Your task to perform on an android device: See recent photos Image 0: 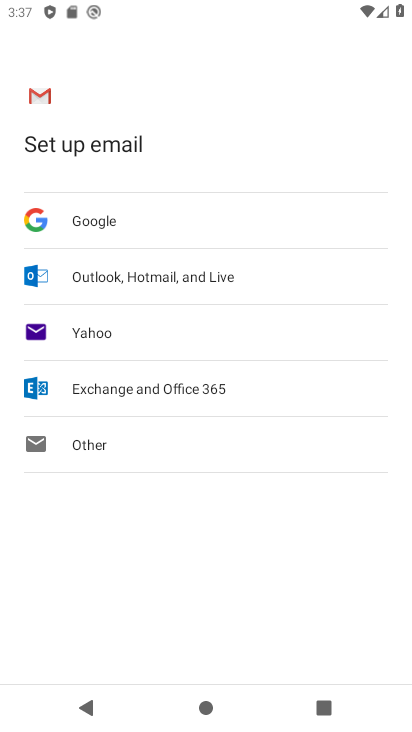
Step 0: press home button
Your task to perform on an android device: See recent photos Image 1: 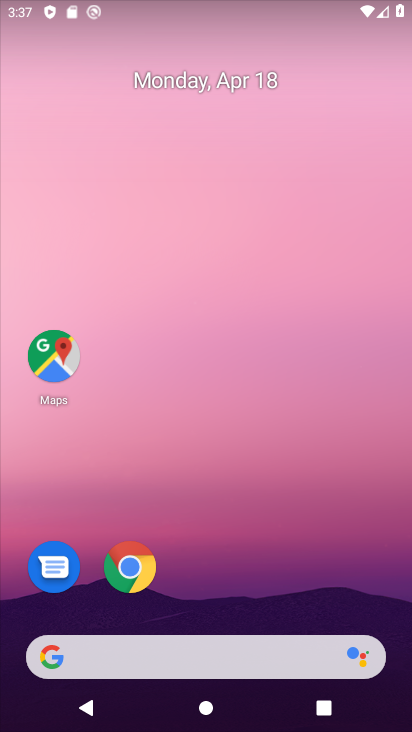
Step 1: drag from (227, 555) to (226, 109)
Your task to perform on an android device: See recent photos Image 2: 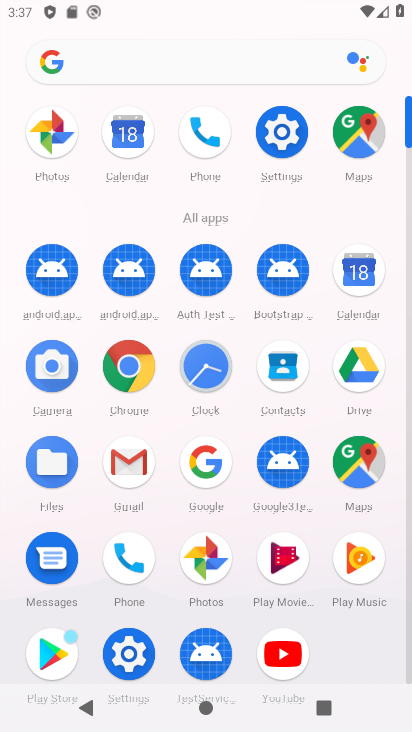
Step 2: click (49, 138)
Your task to perform on an android device: See recent photos Image 3: 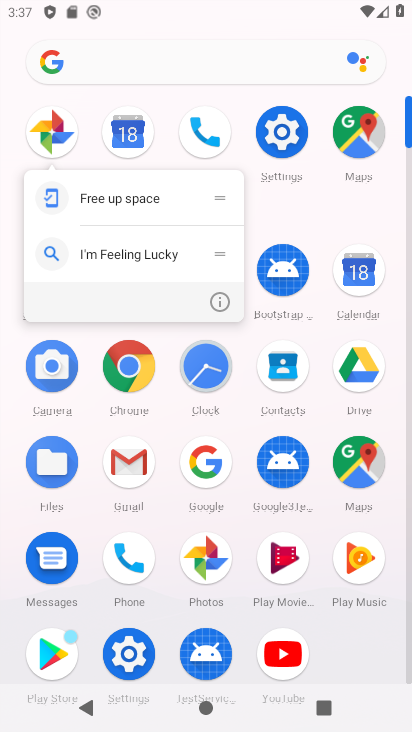
Step 3: click (55, 136)
Your task to perform on an android device: See recent photos Image 4: 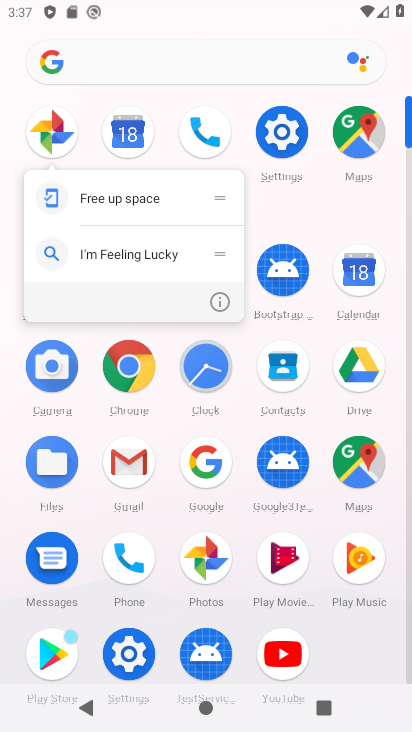
Step 4: click (51, 151)
Your task to perform on an android device: See recent photos Image 5: 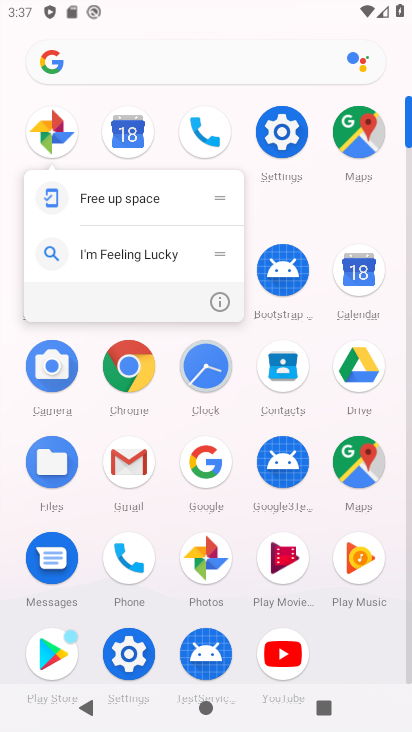
Step 5: click (47, 152)
Your task to perform on an android device: See recent photos Image 6: 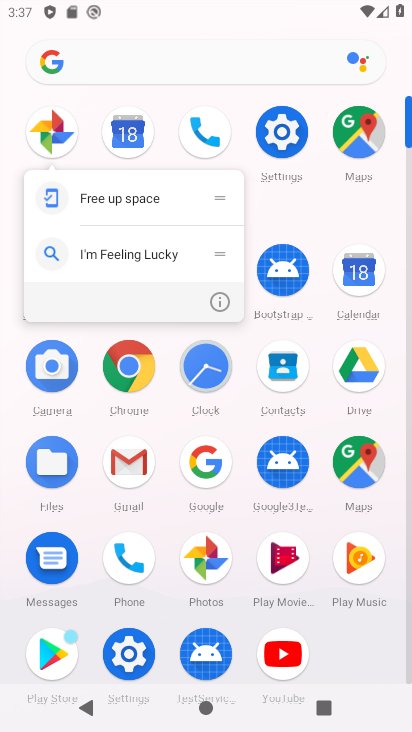
Step 6: click (70, 135)
Your task to perform on an android device: See recent photos Image 7: 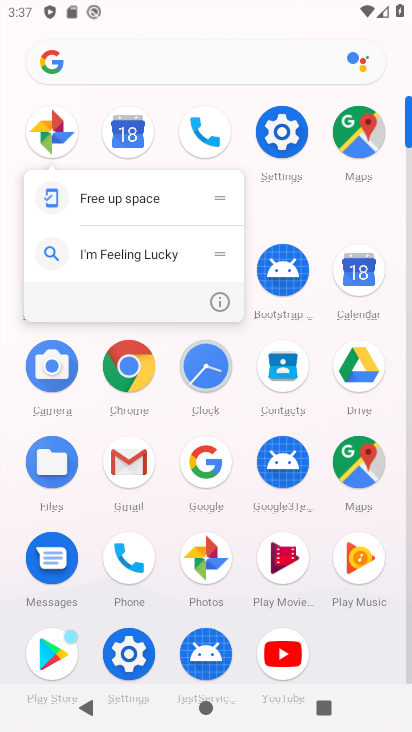
Step 7: click (32, 123)
Your task to perform on an android device: See recent photos Image 8: 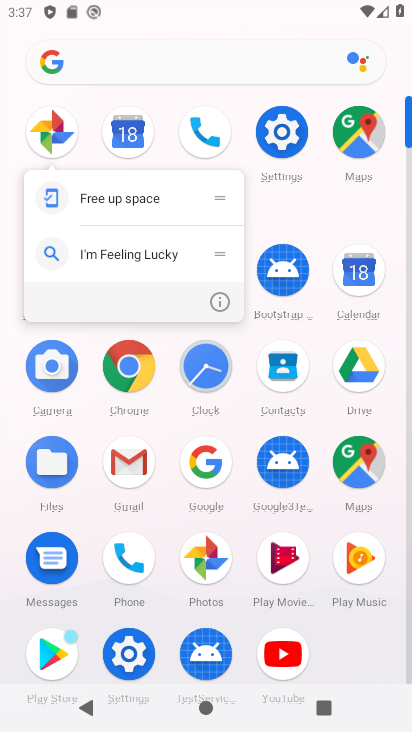
Step 8: click (49, 144)
Your task to perform on an android device: See recent photos Image 9: 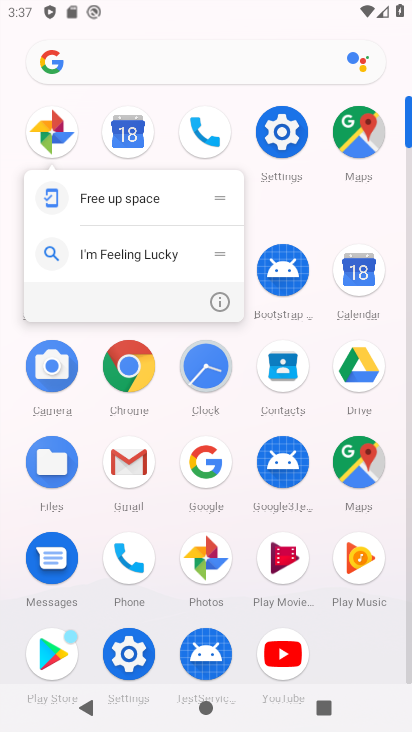
Step 9: click (66, 133)
Your task to perform on an android device: See recent photos Image 10: 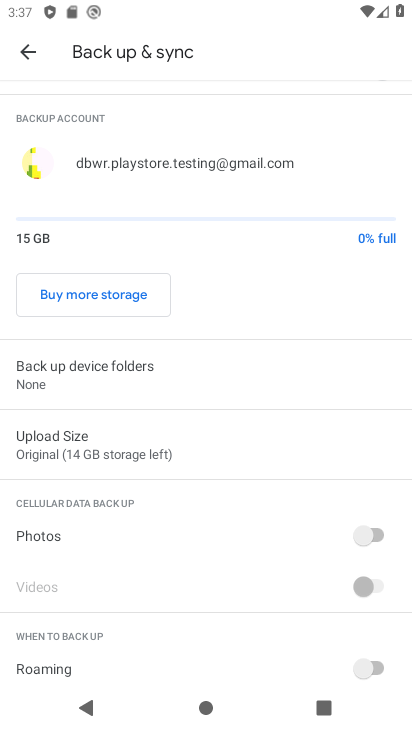
Step 10: task complete